Your task to perform on an android device: open app "Booking.com: Hotels and more" (install if not already installed) Image 0: 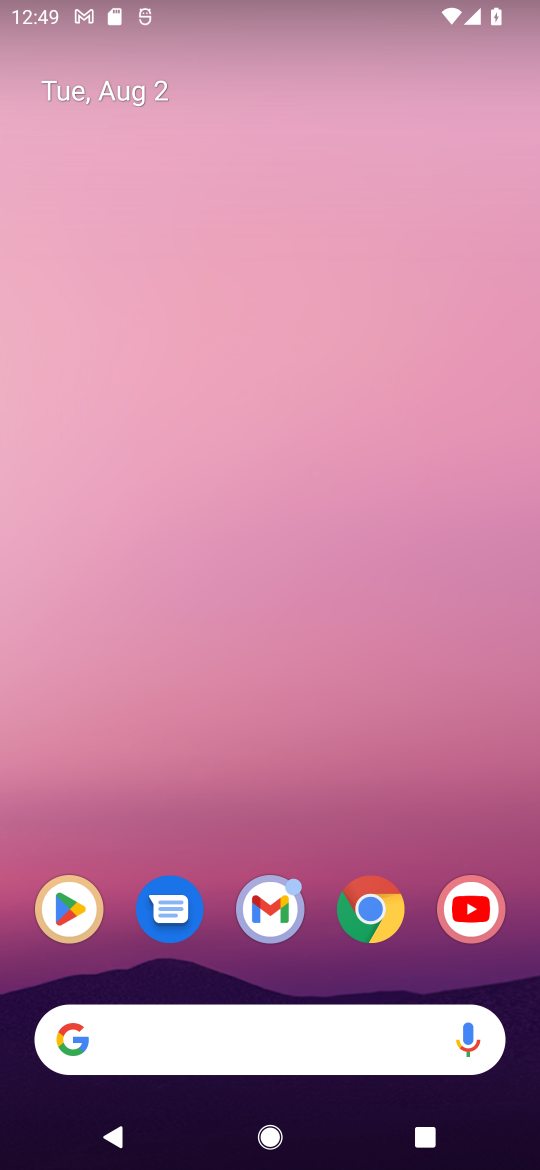
Step 0: click (50, 907)
Your task to perform on an android device: open app "Booking.com: Hotels and more" (install if not already installed) Image 1: 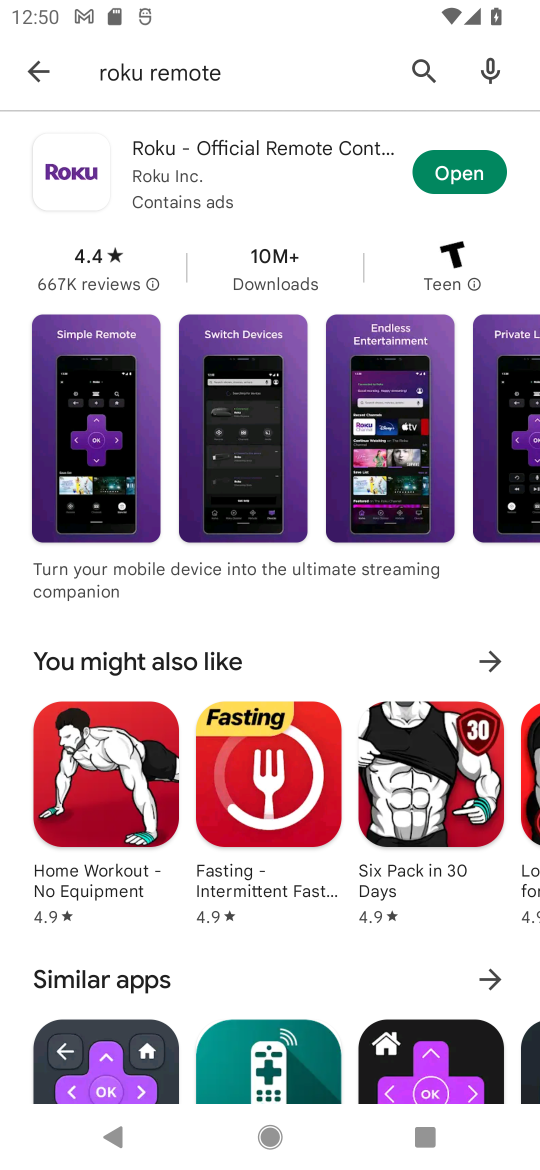
Step 1: click (426, 61)
Your task to perform on an android device: open app "Booking.com: Hotels and more" (install if not already installed) Image 2: 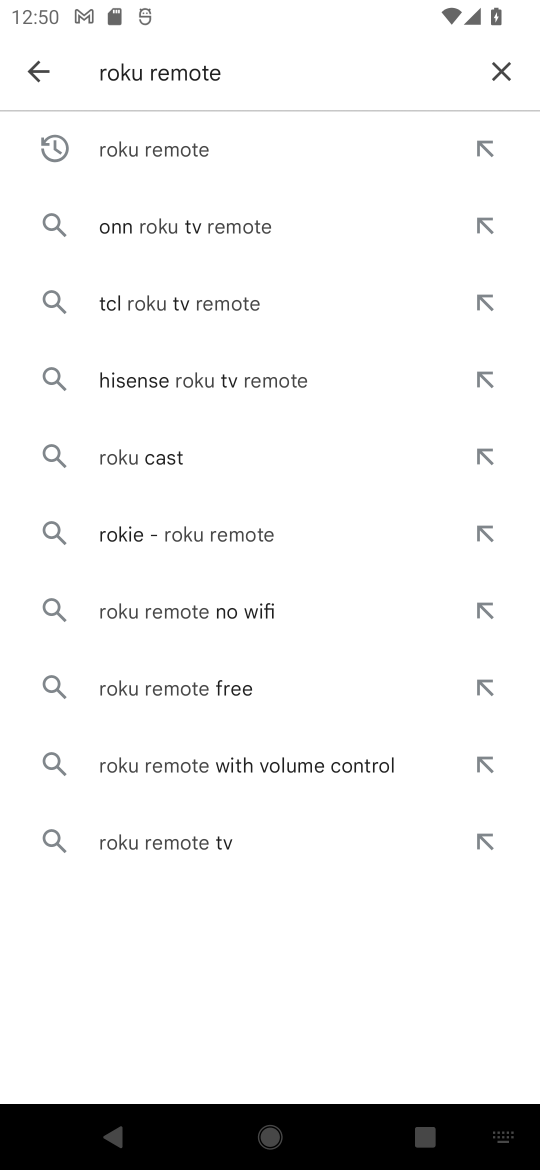
Step 2: click (508, 63)
Your task to perform on an android device: open app "Booking.com: Hotels and more" (install if not already installed) Image 3: 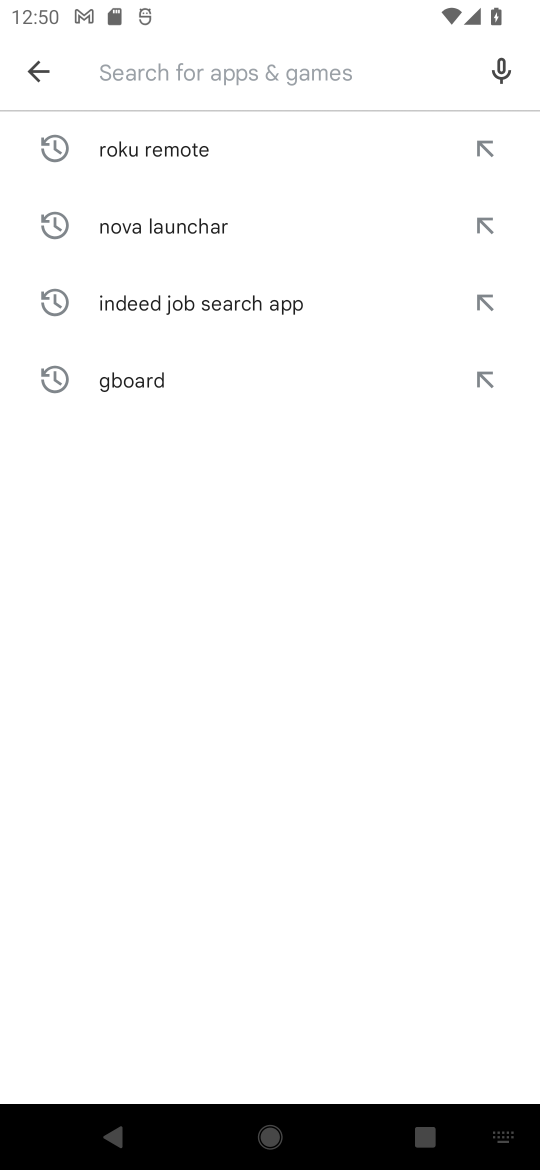
Step 3: type "Booking.com: Hotels and more"
Your task to perform on an android device: open app "Booking.com: Hotels and more" (install if not already installed) Image 4: 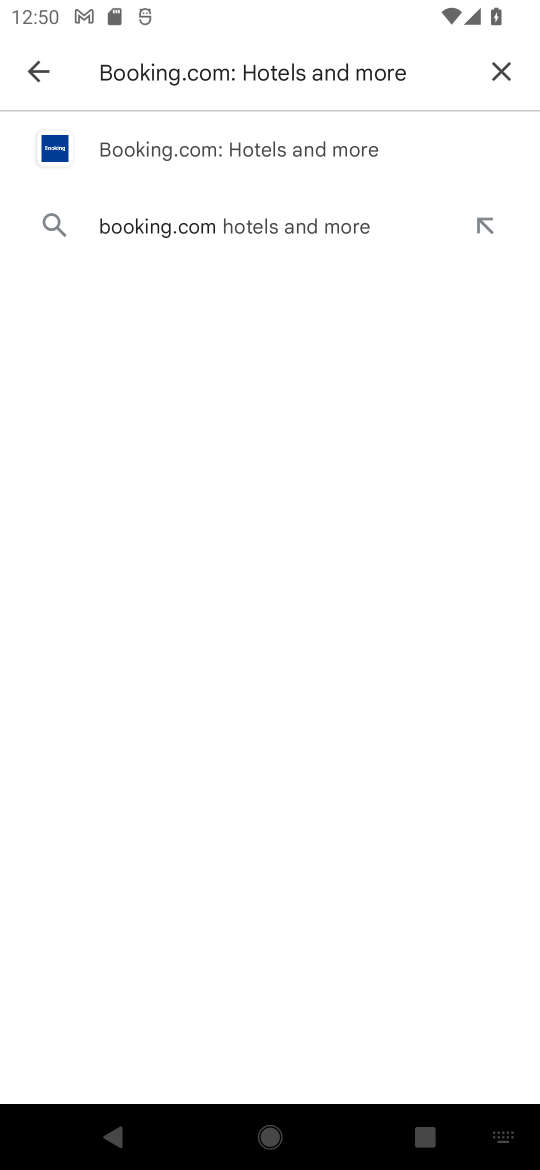
Step 4: click (291, 152)
Your task to perform on an android device: open app "Booking.com: Hotels and more" (install if not already installed) Image 5: 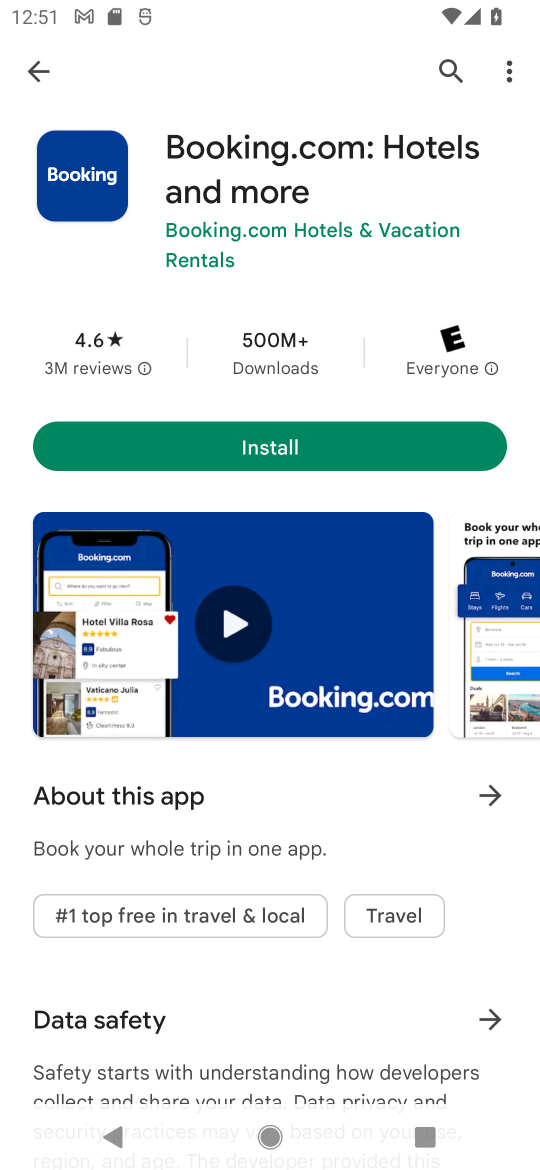
Step 5: click (280, 440)
Your task to perform on an android device: open app "Booking.com: Hotels and more" (install if not already installed) Image 6: 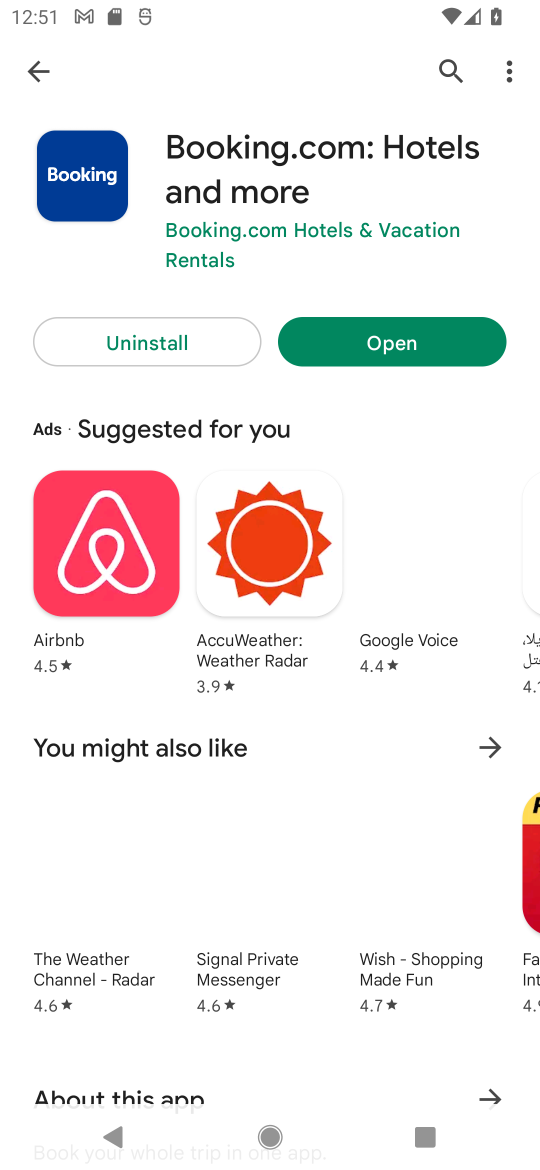
Step 6: click (429, 347)
Your task to perform on an android device: open app "Booking.com: Hotels and more" (install if not already installed) Image 7: 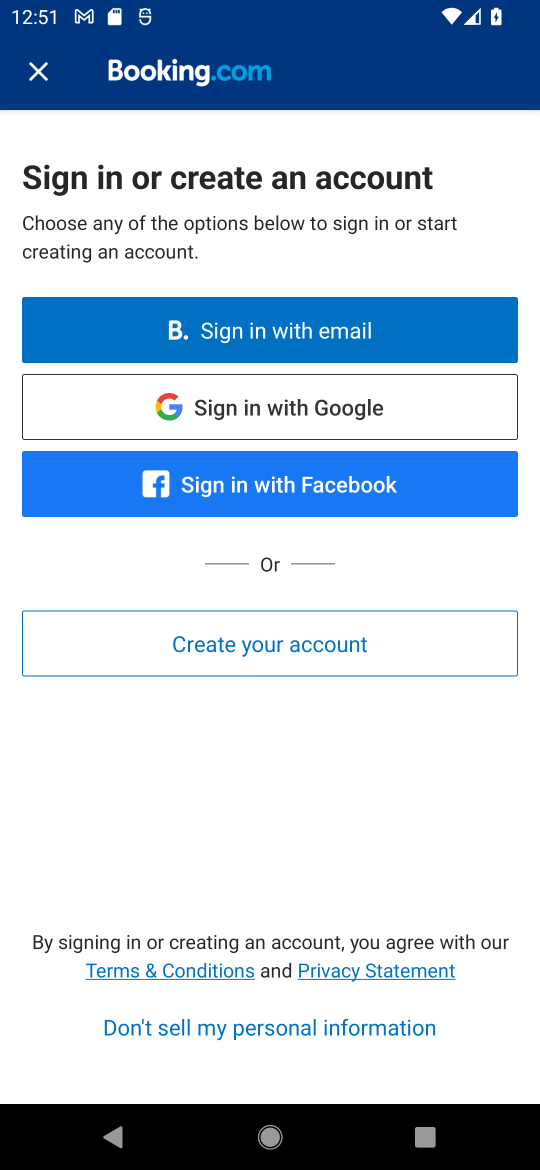
Step 7: task complete